Your task to perform on an android device: see tabs open on other devices in the chrome app Image 0: 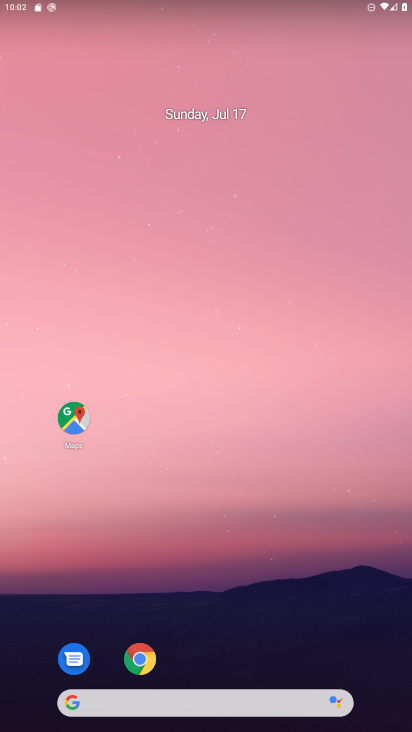
Step 0: click (142, 647)
Your task to perform on an android device: see tabs open on other devices in the chrome app Image 1: 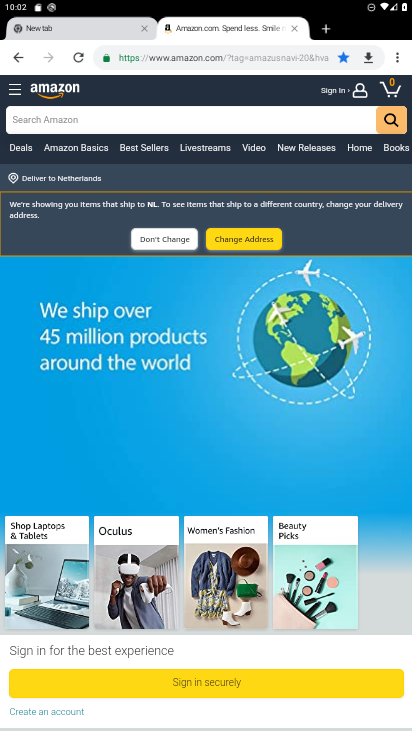
Step 1: click (397, 57)
Your task to perform on an android device: see tabs open on other devices in the chrome app Image 2: 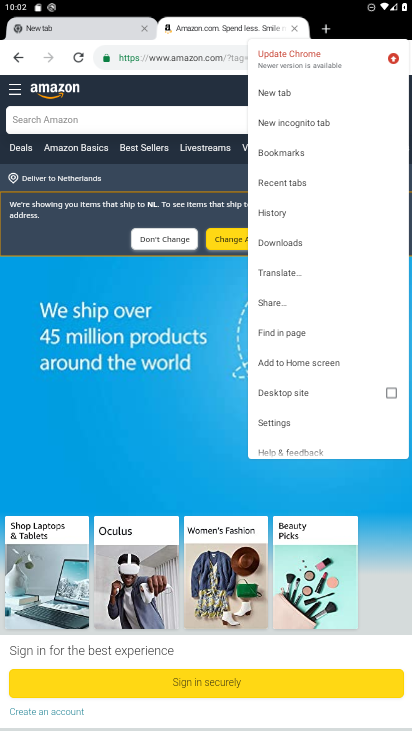
Step 2: click (286, 180)
Your task to perform on an android device: see tabs open on other devices in the chrome app Image 3: 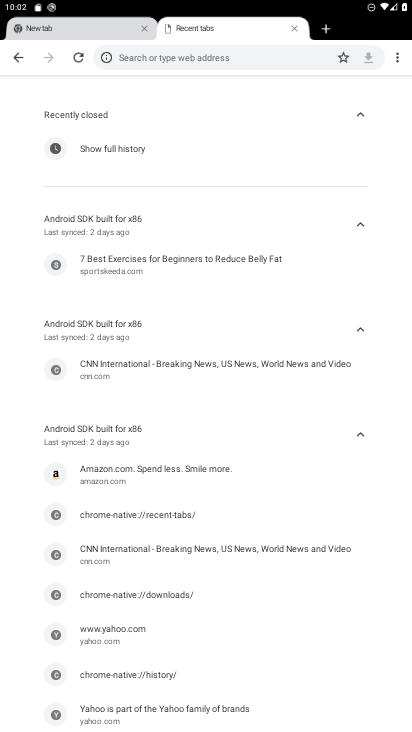
Step 3: task complete